Your task to perform on an android device: What's the weather? Image 0: 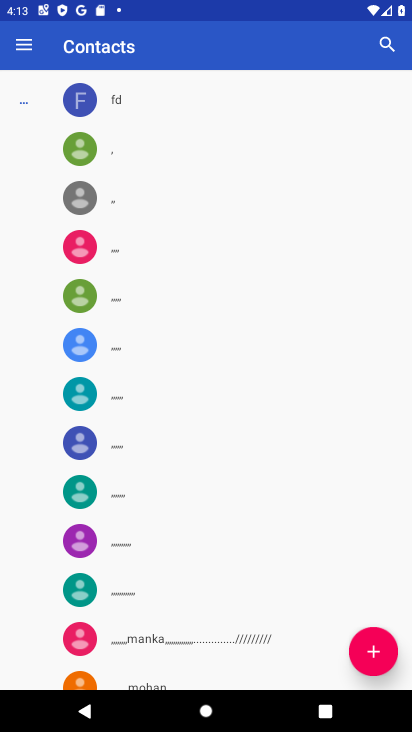
Step 0: press home button
Your task to perform on an android device: What's the weather? Image 1: 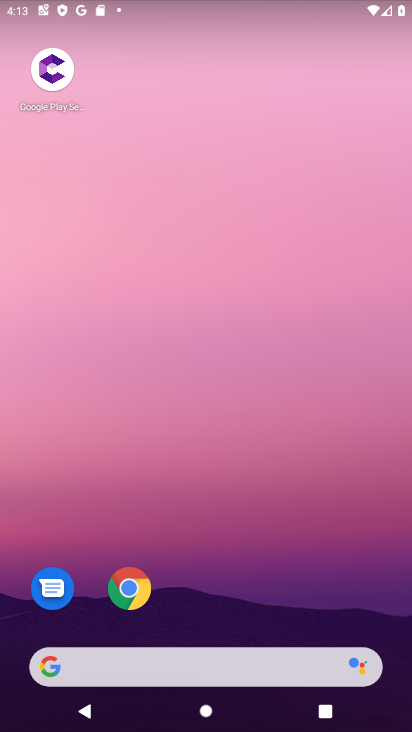
Step 1: drag from (241, 631) to (236, 145)
Your task to perform on an android device: What's the weather? Image 2: 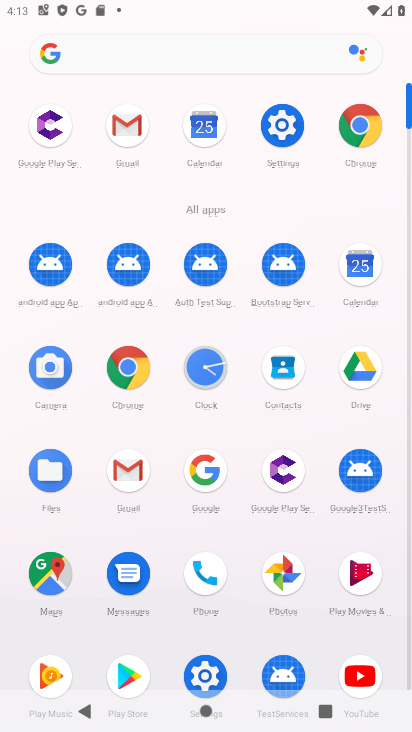
Step 2: click (200, 68)
Your task to perform on an android device: What's the weather? Image 3: 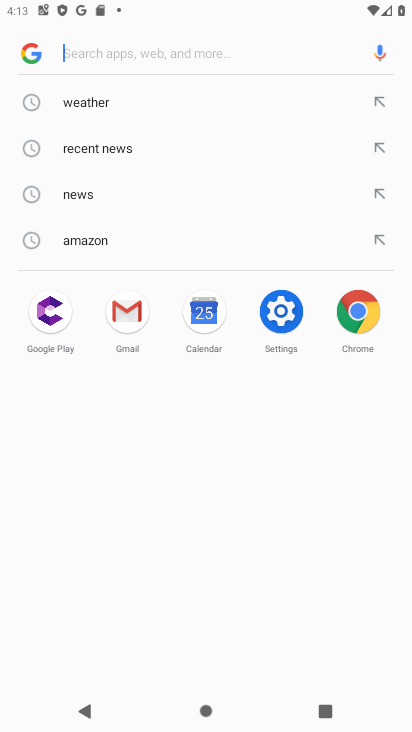
Step 3: click (172, 99)
Your task to perform on an android device: What's the weather? Image 4: 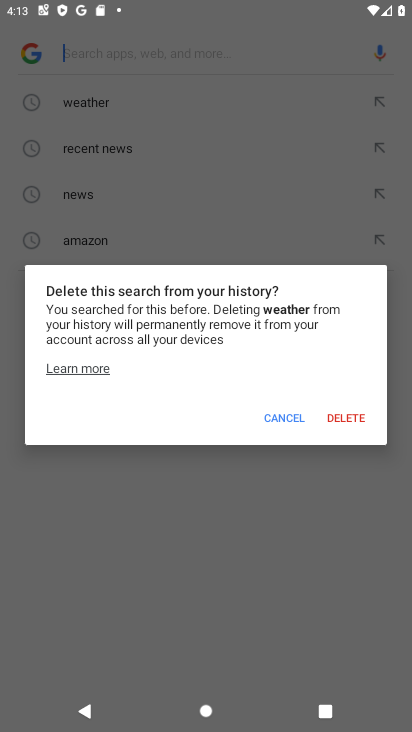
Step 4: click (281, 422)
Your task to perform on an android device: What's the weather? Image 5: 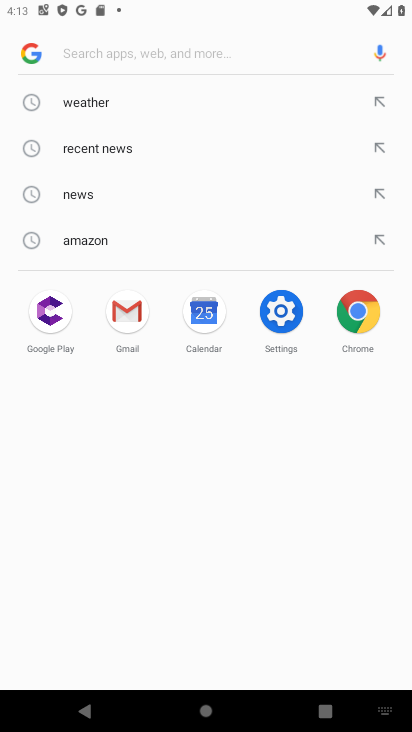
Step 5: click (104, 105)
Your task to perform on an android device: What's the weather? Image 6: 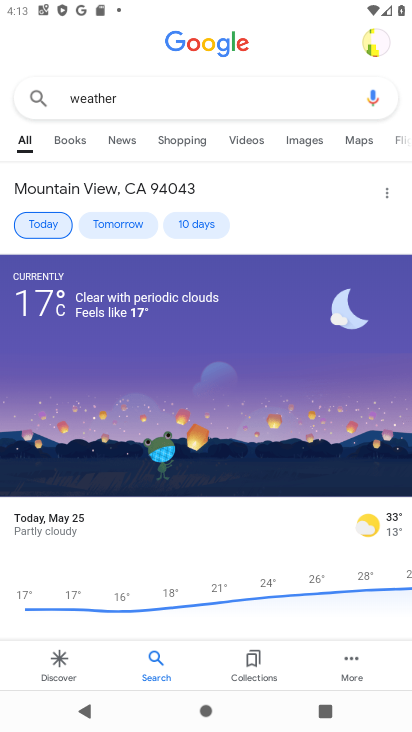
Step 6: task complete